Your task to perform on an android device: What is the recent news? Image 0: 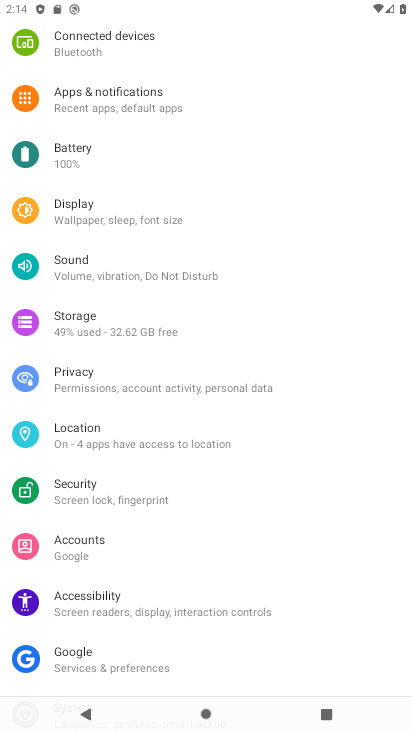
Step 0: press home button
Your task to perform on an android device: What is the recent news? Image 1: 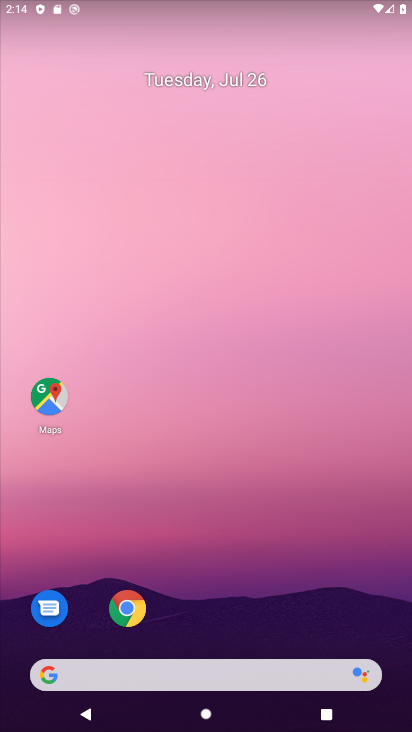
Step 1: click (129, 683)
Your task to perform on an android device: What is the recent news? Image 2: 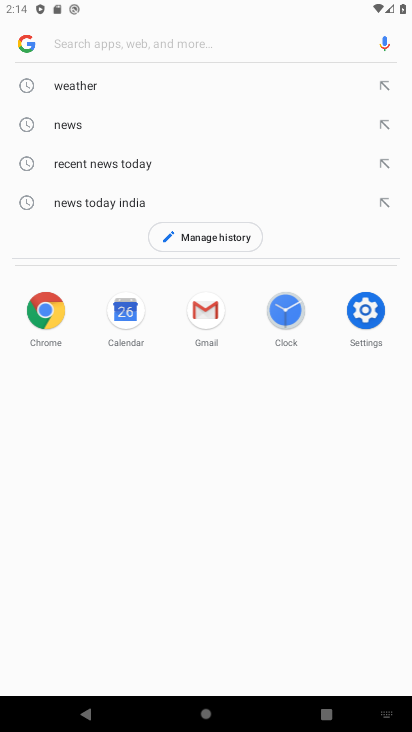
Step 2: type "What is the recent news?"
Your task to perform on an android device: What is the recent news? Image 3: 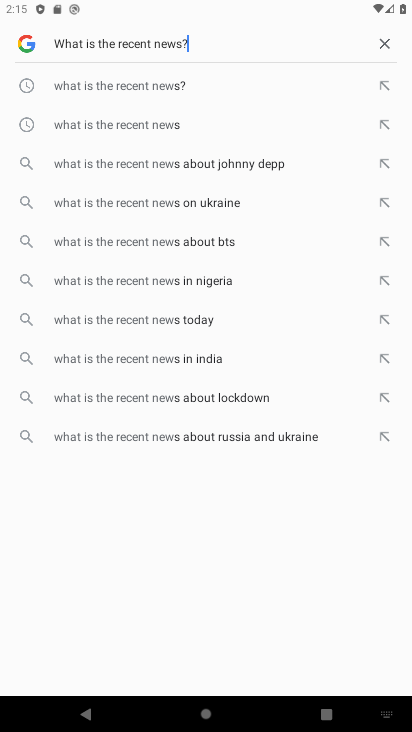
Step 3: press enter
Your task to perform on an android device: What is the recent news? Image 4: 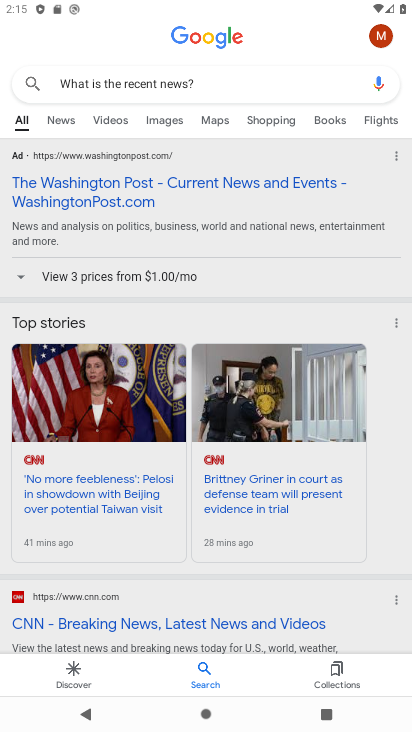
Step 4: task complete